Your task to perform on an android device: toggle airplane mode Image 0: 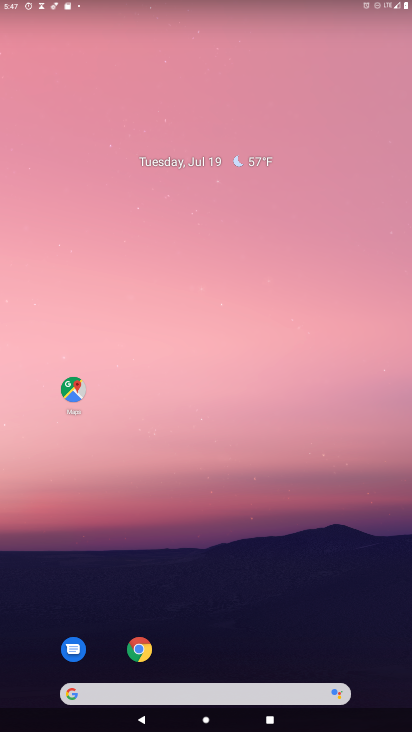
Step 0: drag from (194, 606) to (162, 133)
Your task to perform on an android device: toggle airplane mode Image 1: 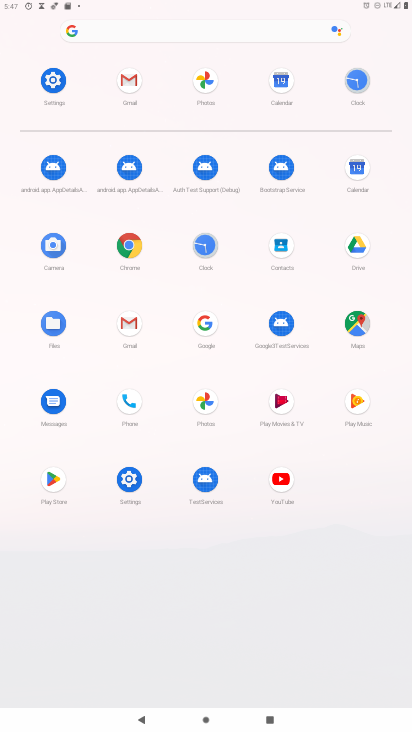
Step 1: click (130, 486)
Your task to perform on an android device: toggle airplane mode Image 2: 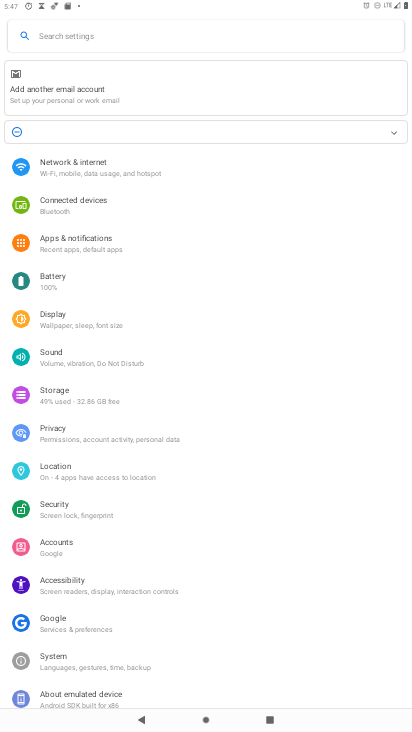
Step 2: click (66, 106)
Your task to perform on an android device: toggle airplane mode Image 3: 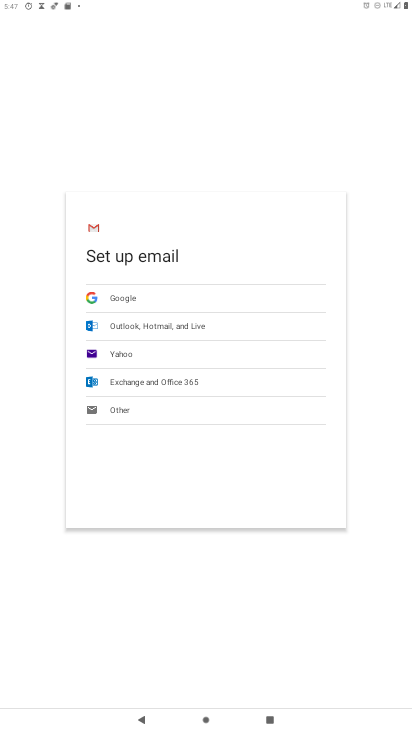
Step 3: click (49, 152)
Your task to perform on an android device: toggle airplane mode Image 4: 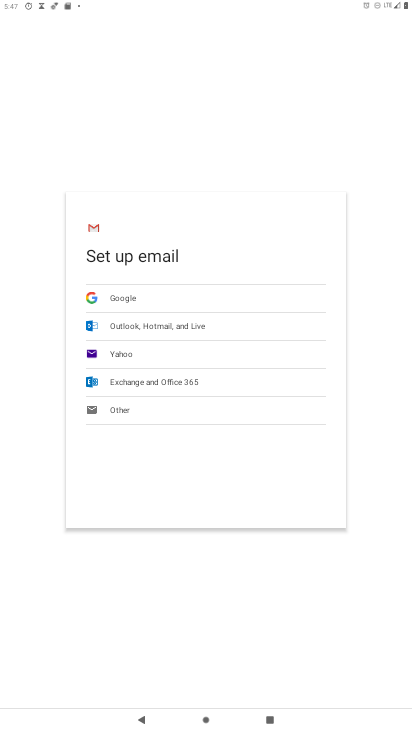
Step 4: press back button
Your task to perform on an android device: toggle airplane mode Image 5: 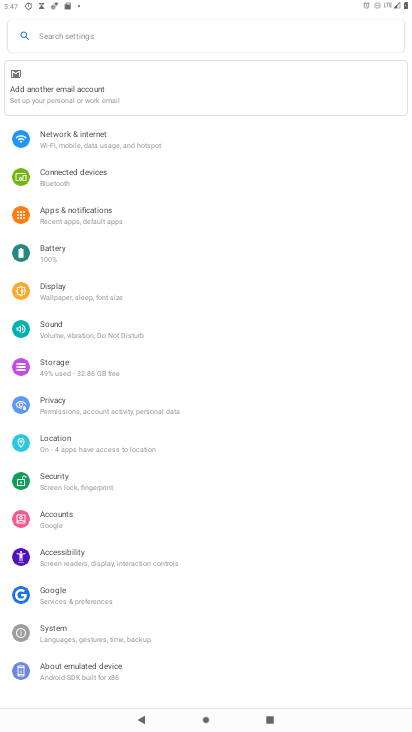
Step 5: click (110, 148)
Your task to perform on an android device: toggle airplane mode Image 6: 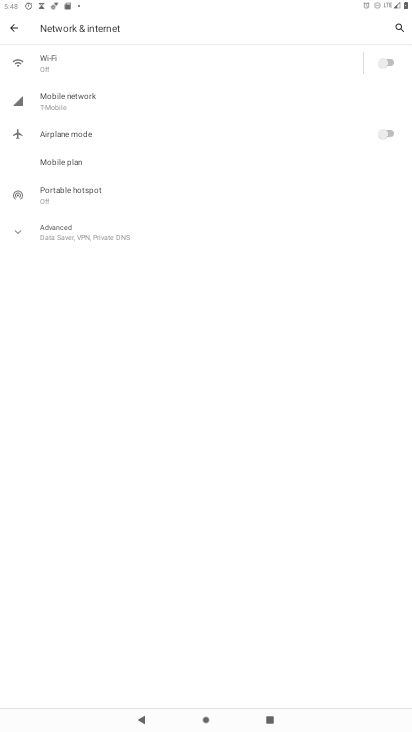
Step 6: click (394, 130)
Your task to perform on an android device: toggle airplane mode Image 7: 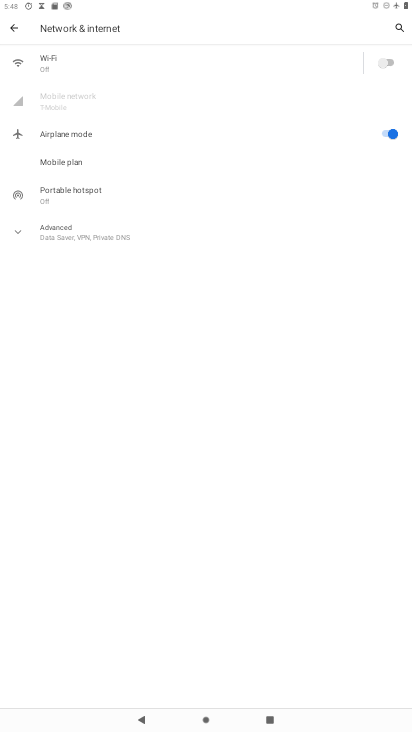
Step 7: task complete